Your task to perform on an android device: create a new album in the google photos Image 0: 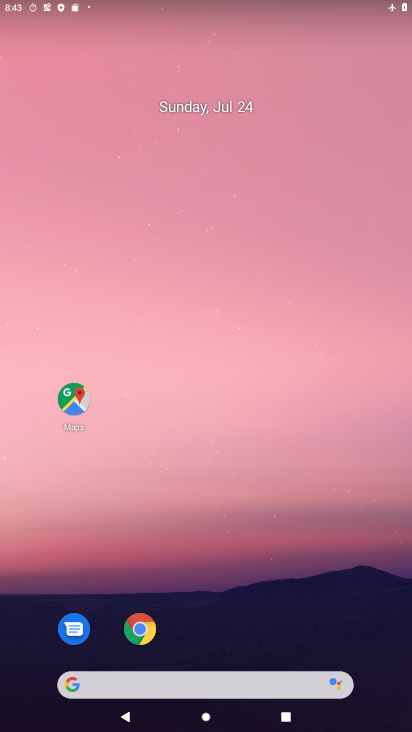
Step 0: drag from (215, 526) to (167, 143)
Your task to perform on an android device: create a new album in the google photos Image 1: 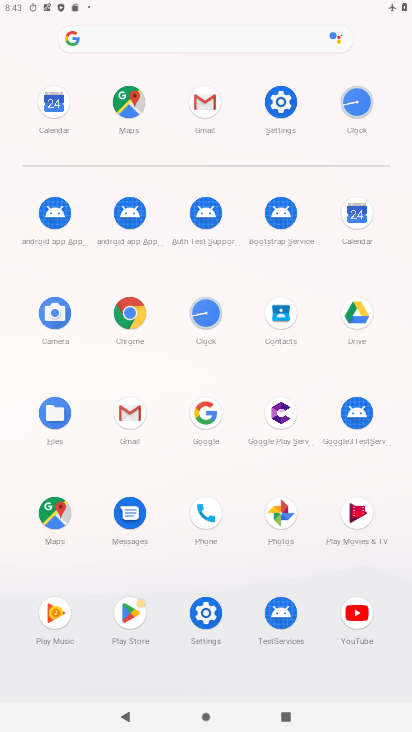
Step 1: click (284, 532)
Your task to perform on an android device: create a new album in the google photos Image 2: 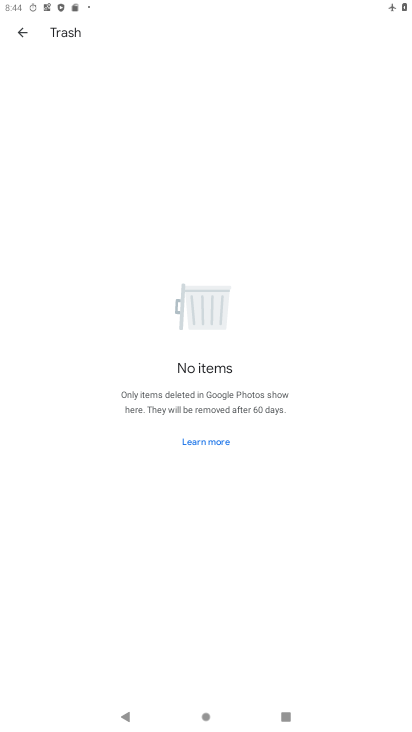
Step 2: click (12, 31)
Your task to perform on an android device: create a new album in the google photos Image 3: 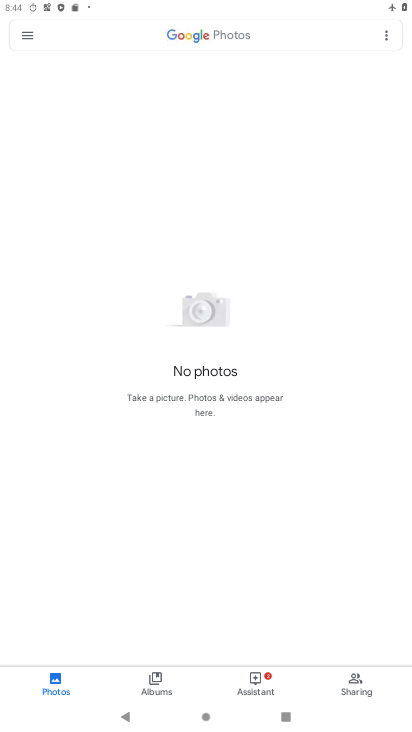
Step 3: click (162, 685)
Your task to perform on an android device: create a new album in the google photos Image 4: 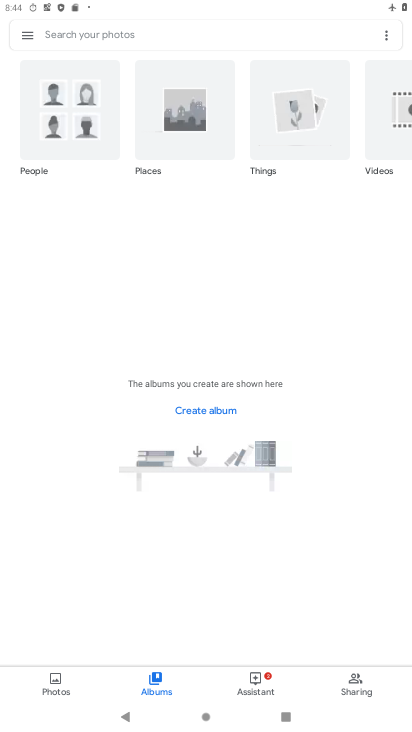
Step 4: click (219, 425)
Your task to perform on an android device: create a new album in the google photos Image 5: 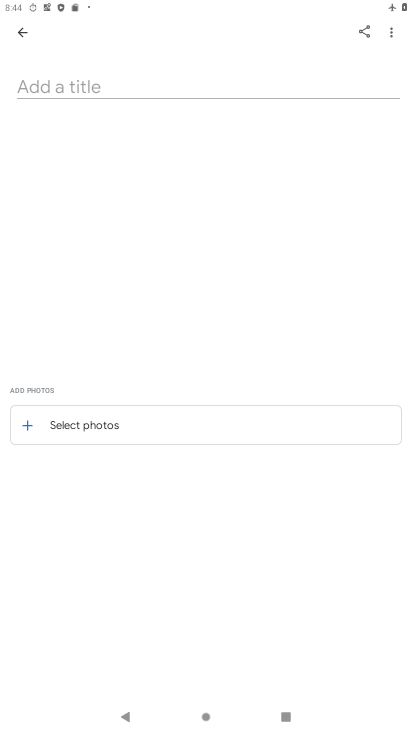
Step 5: click (107, 91)
Your task to perform on an android device: create a new album in the google photos Image 6: 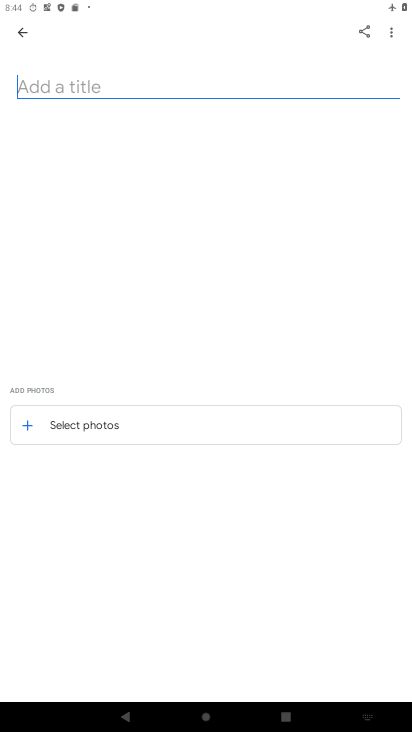
Step 6: type "gfhgfg"
Your task to perform on an android device: create a new album in the google photos Image 7: 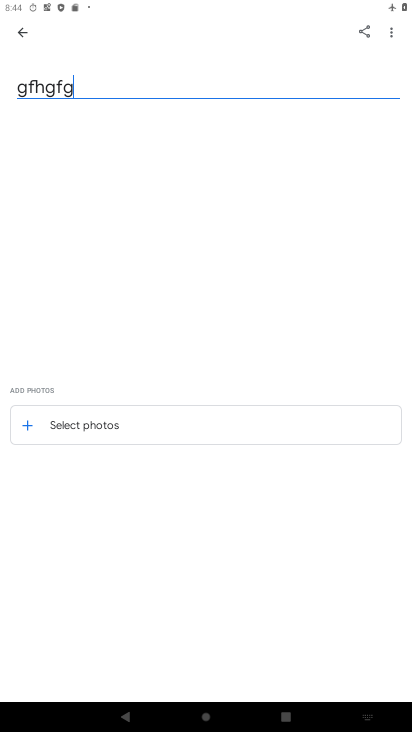
Step 7: type ""
Your task to perform on an android device: create a new album in the google photos Image 8: 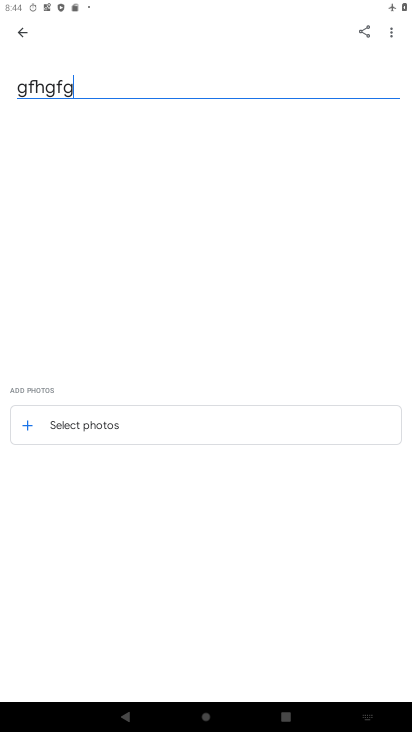
Step 8: click (120, 441)
Your task to perform on an android device: create a new album in the google photos Image 9: 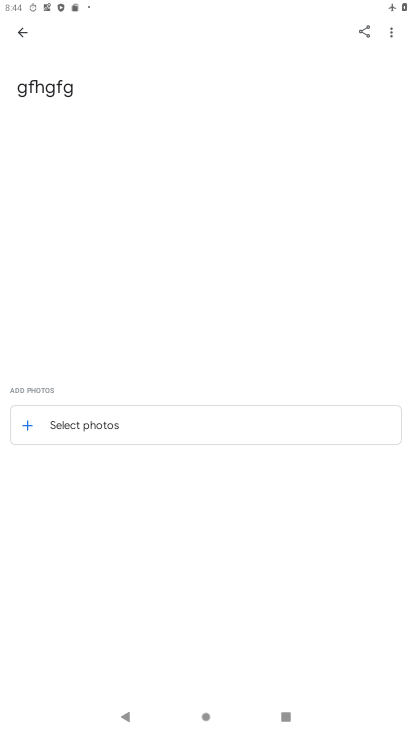
Step 9: click (31, 422)
Your task to perform on an android device: create a new album in the google photos Image 10: 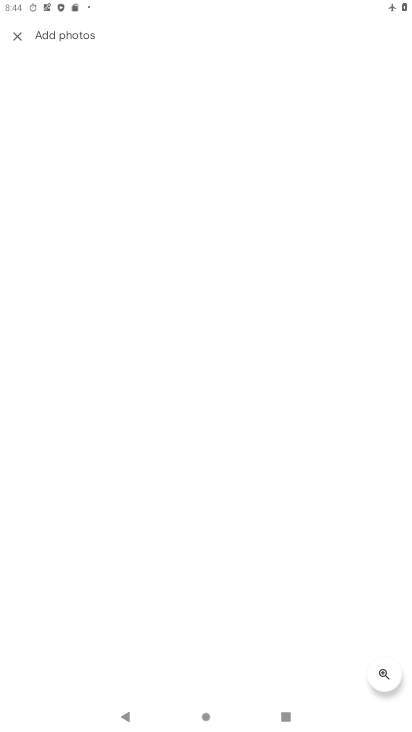
Step 10: click (235, 170)
Your task to perform on an android device: create a new album in the google photos Image 11: 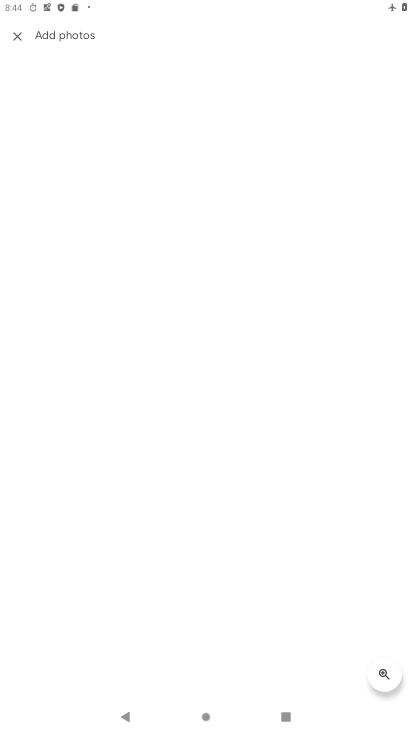
Step 11: click (233, 174)
Your task to perform on an android device: create a new album in the google photos Image 12: 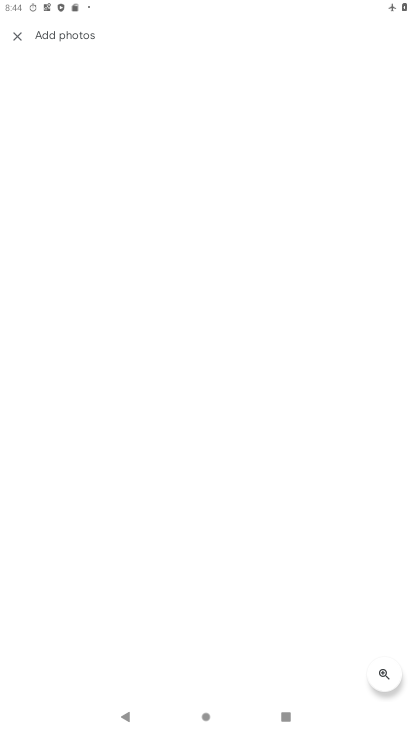
Step 12: click (200, 258)
Your task to perform on an android device: create a new album in the google photos Image 13: 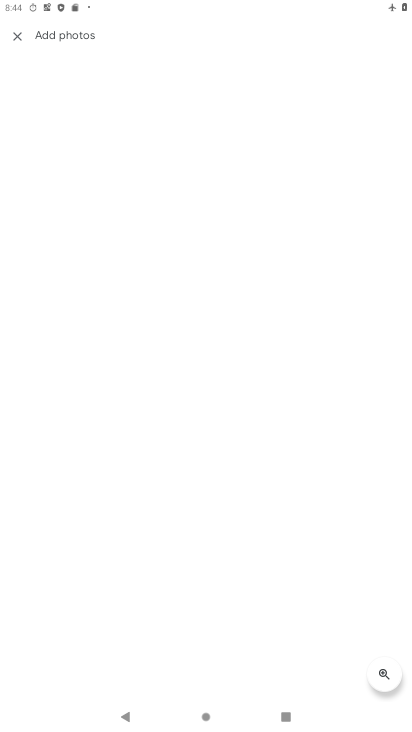
Step 13: task complete